Your task to perform on an android device: Open Google Chrome and open the bookmarks view Image 0: 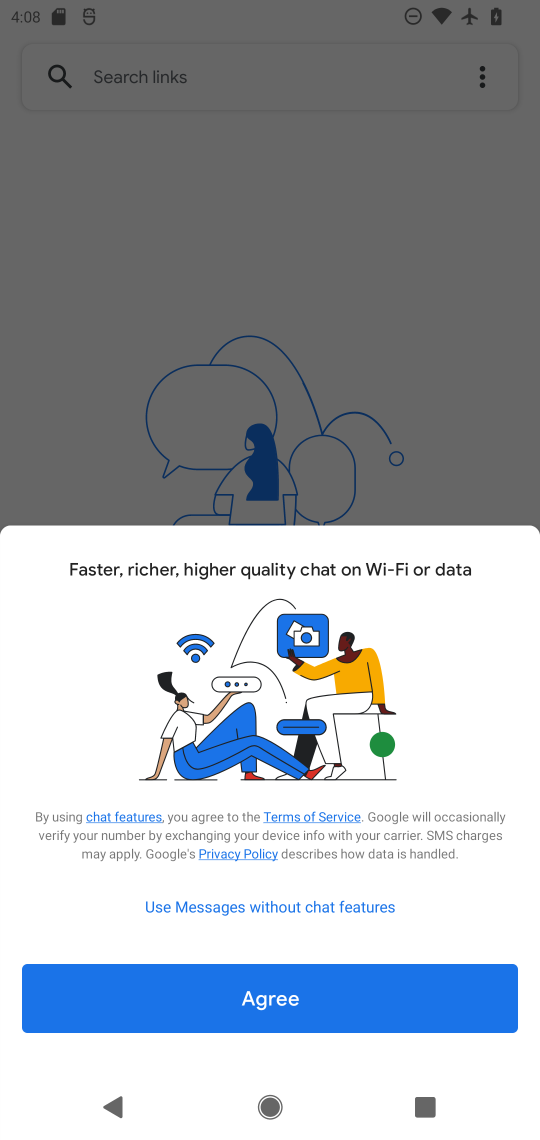
Step 0: press home button
Your task to perform on an android device: Open Google Chrome and open the bookmarks view Image 1: 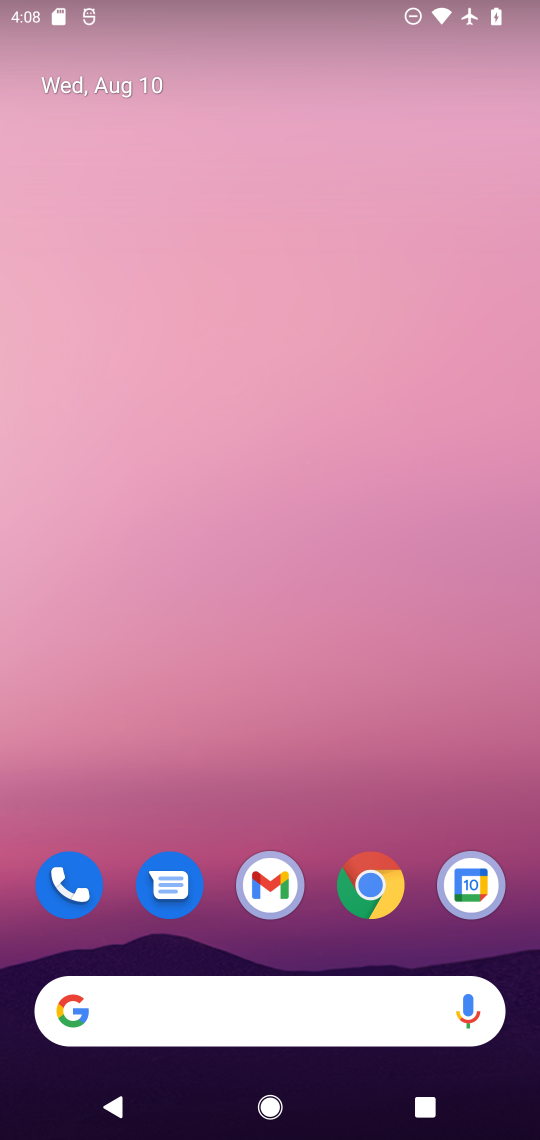
Step 1: click (376, 891)
Your task to perform on an android device: Open Google Chrome and open the bookmarks view Image 2: 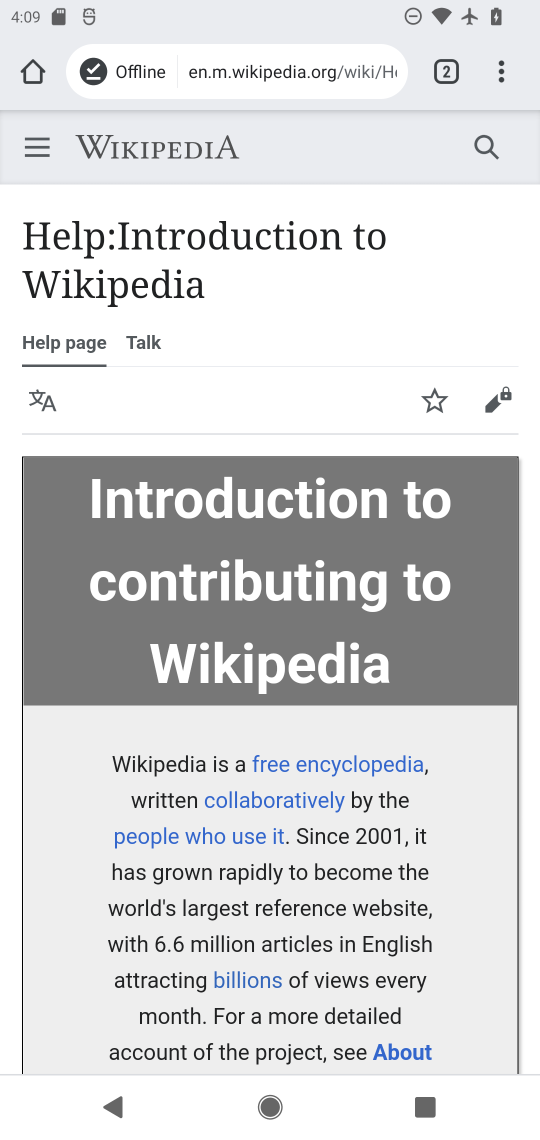
Step 2: click (505, 65)
Your task to perform on an android device: Open Google Chrome and open the bookmarks view Image 3: 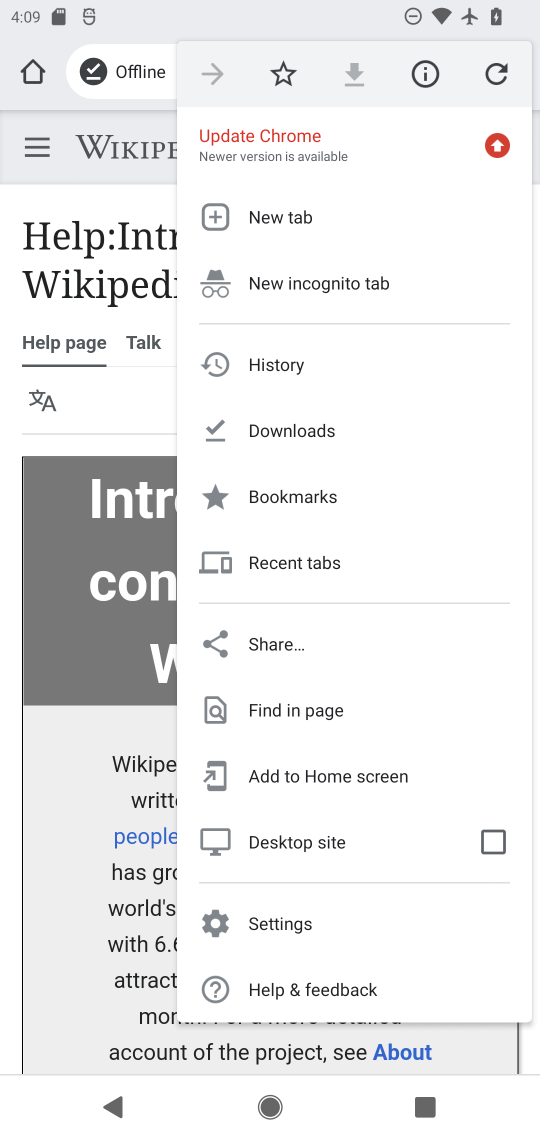
Step 3: click (299, 491)
Your task to perform on an android device: Open Google Chrome and open the bookmarks view Image 4: 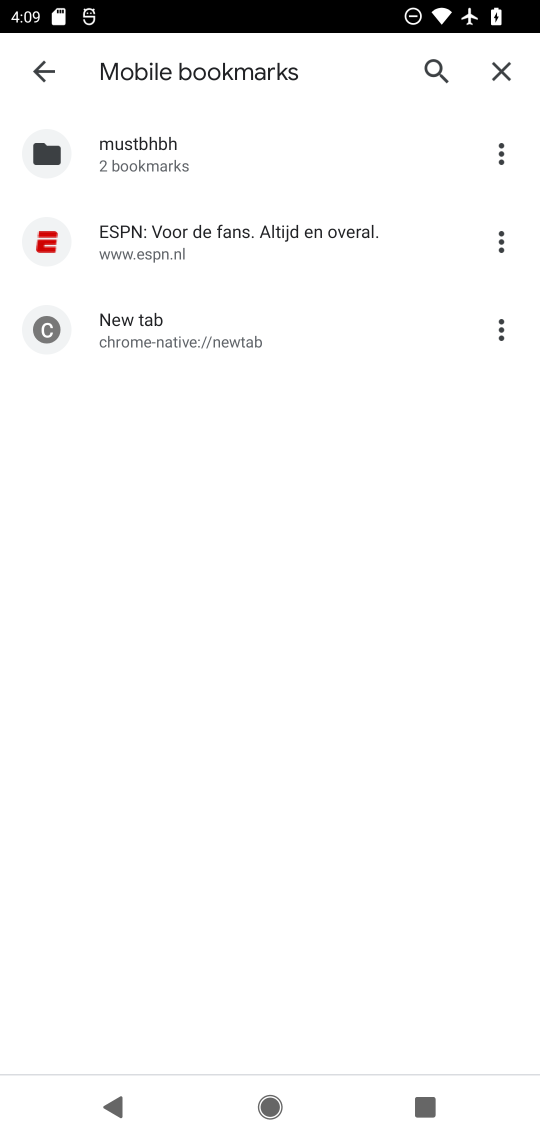
Step 4: click (496, 159)
Your task to perform on an android device: Open Google Chrome and open the bookmarks view Image 5: 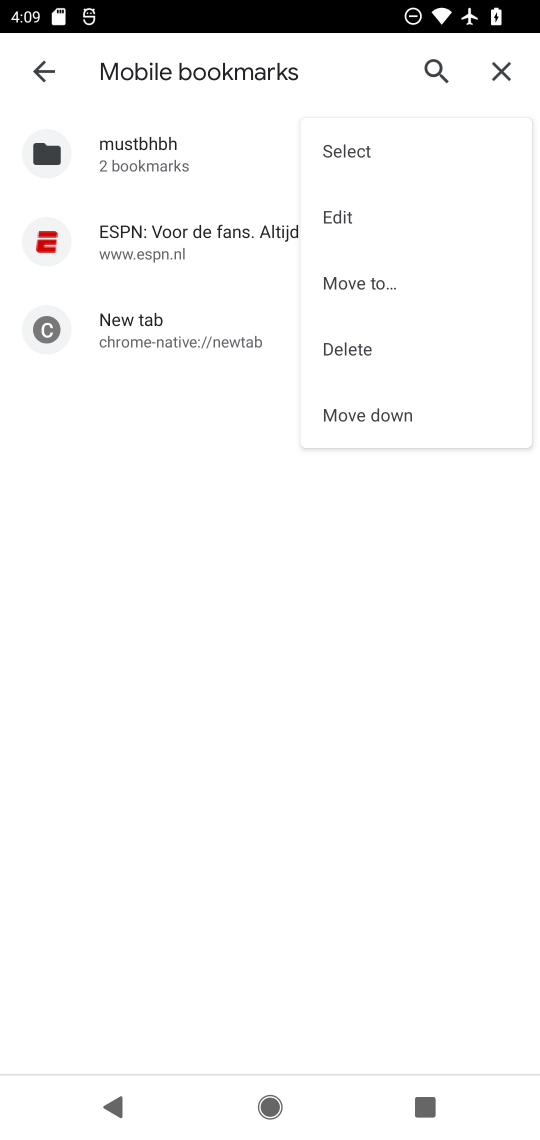
Step 5: click (343, 200)
Your task to perform on an android device: Open Google Chrome and open the bookmarks view Image 6: 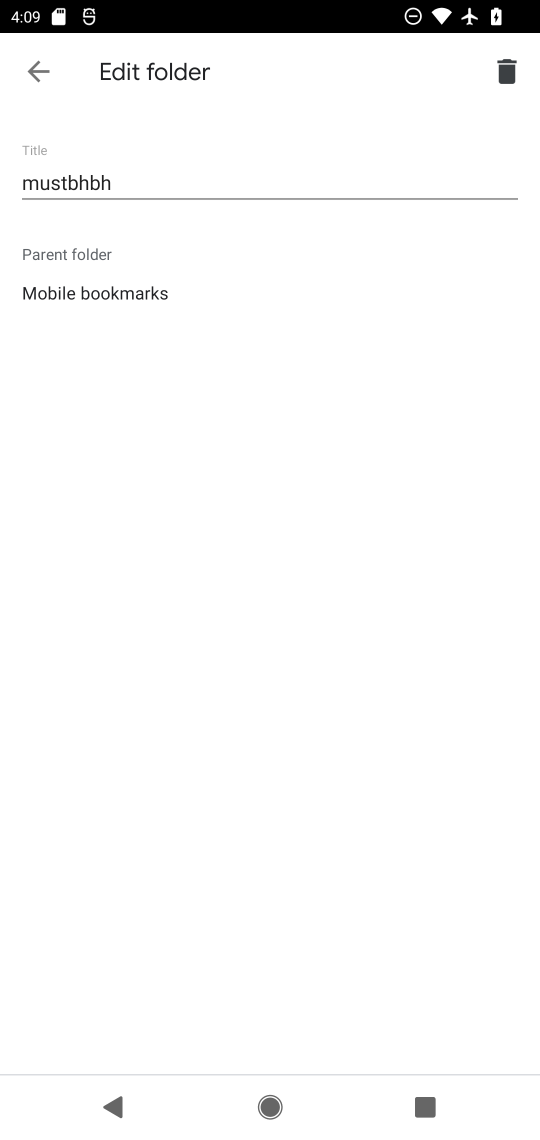
Step 6: task complete